Your task to perform on an android device: Go to internet settings Image 0: 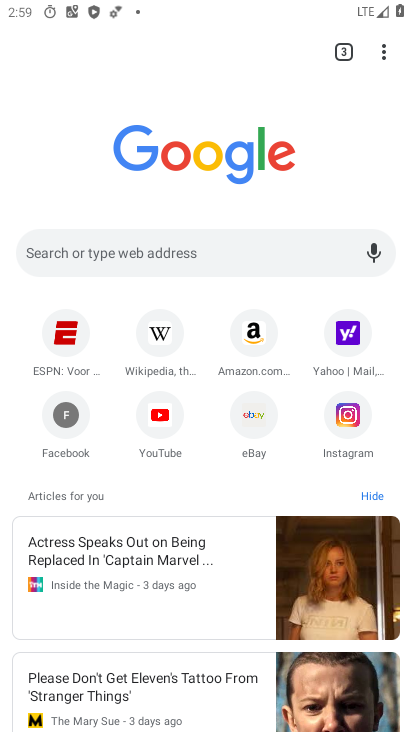
Step 0: press home button
Your task to perform on an android device: Go to internet settings Image 1: 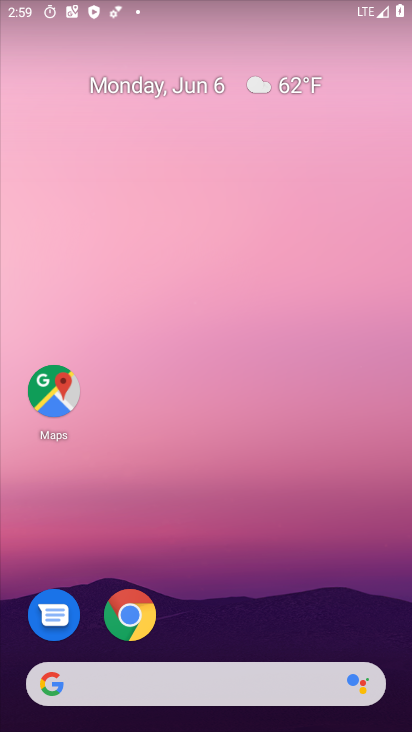
Step 1: drag from (221, 688) to (246, 35)
Your task to perform on an android device: Go to internet settings Image 2: 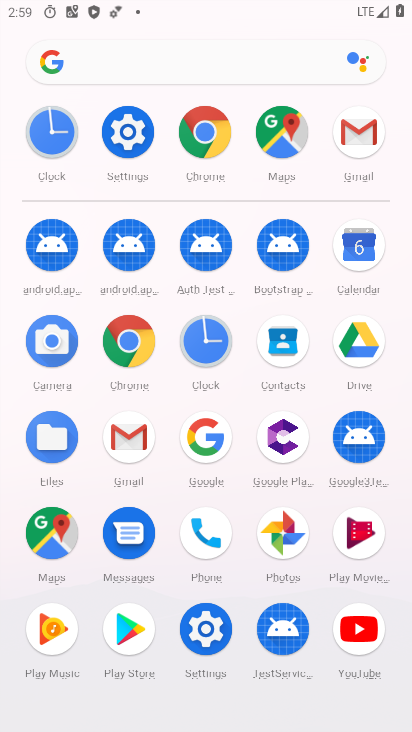
Step 2: click (105, 135)
Your task to perform on an android device: Go to internet settings Image 3: 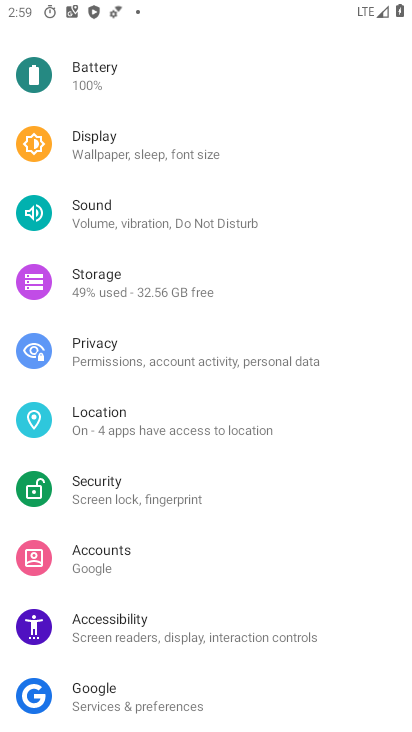
Step 3: drag from (164, 144) to (140, 681)
Your task to perform on an android device: Go to internet settings Image 4: 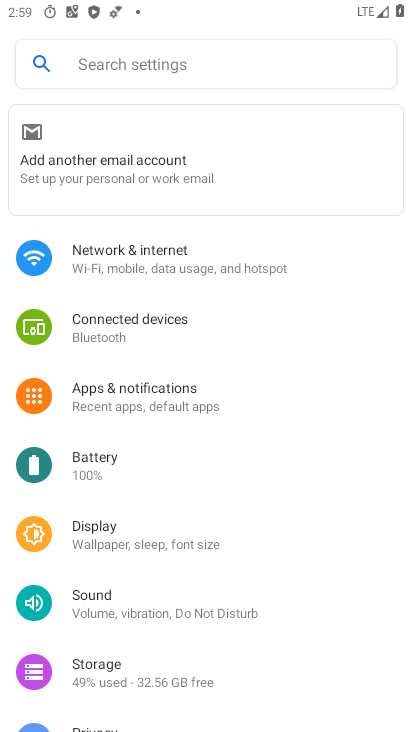
Step 4: click (234, 273)
Your task to perform on an android device: Go to internet settings Image 5: 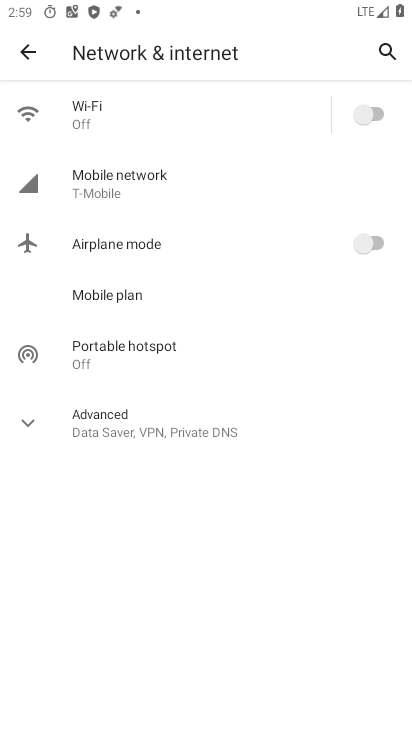
Step 5: task complete